Your task to perform on an android device: Search for logitech g502 on costco.com, select the first entry, add it to the cart, then select checkout. Image 0: 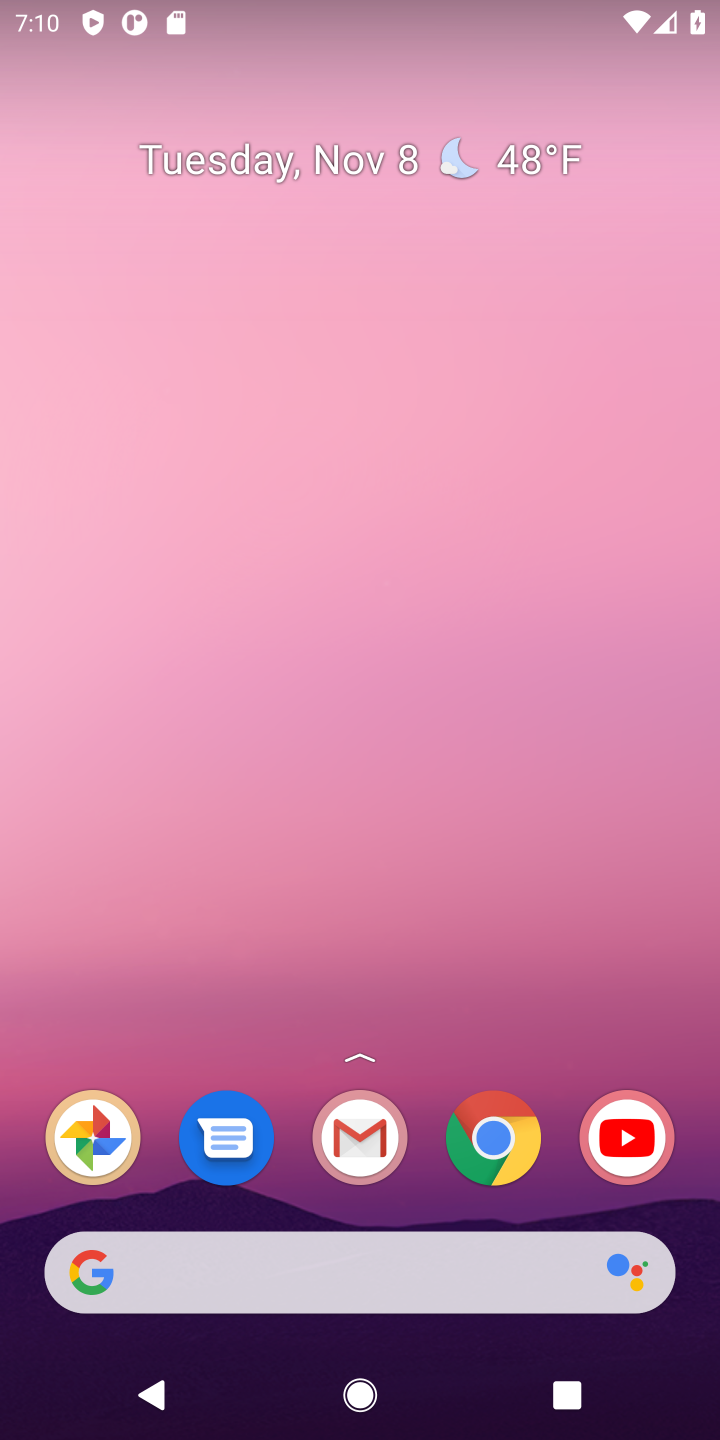
Step 0: click (491, 1143)
Your task to perform on an android device: Search for logitech g502 on costco.com, select the first entry, add it to the cart, then select checkout. Image 1: 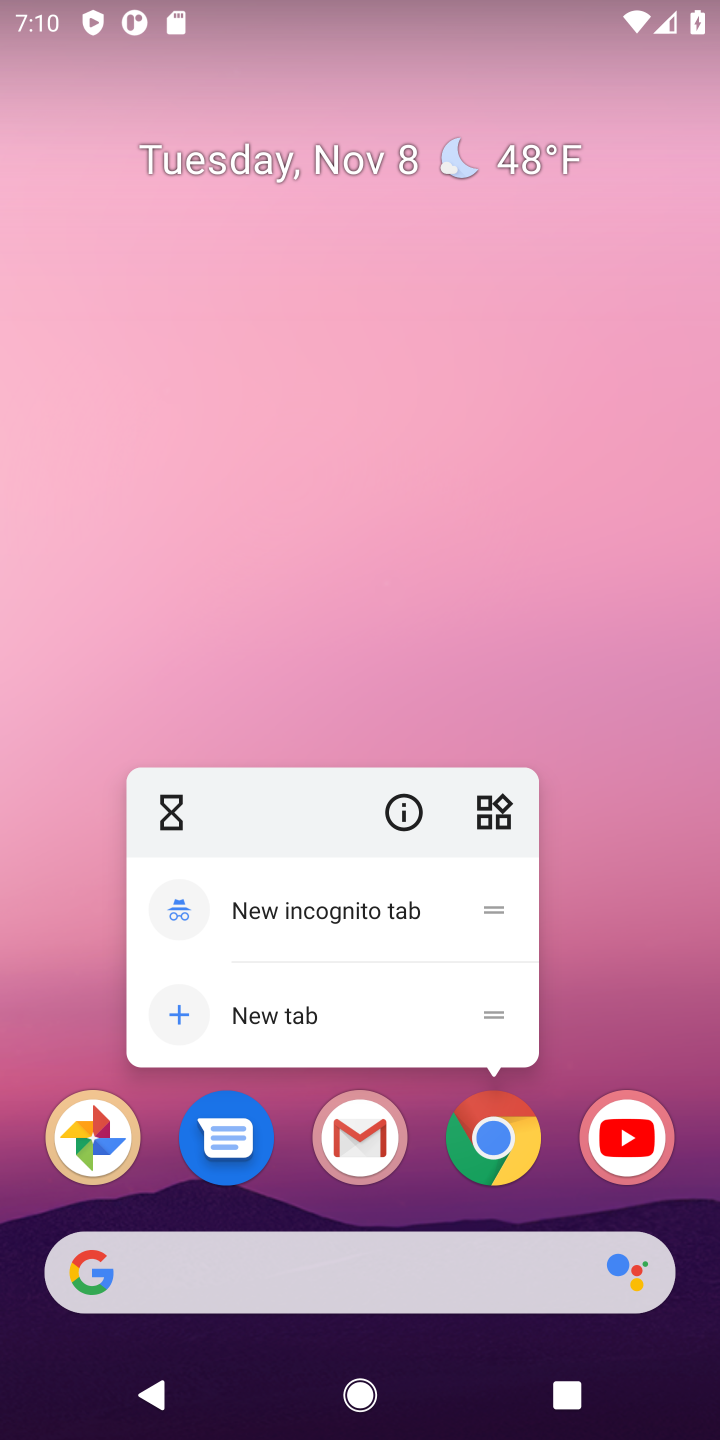
Step 1: click (491, 1143)
Your task to perform on an android device: Search for logitech g502 on costco.com, select the first entry, add it to the cart, then select checkout. Image 2: 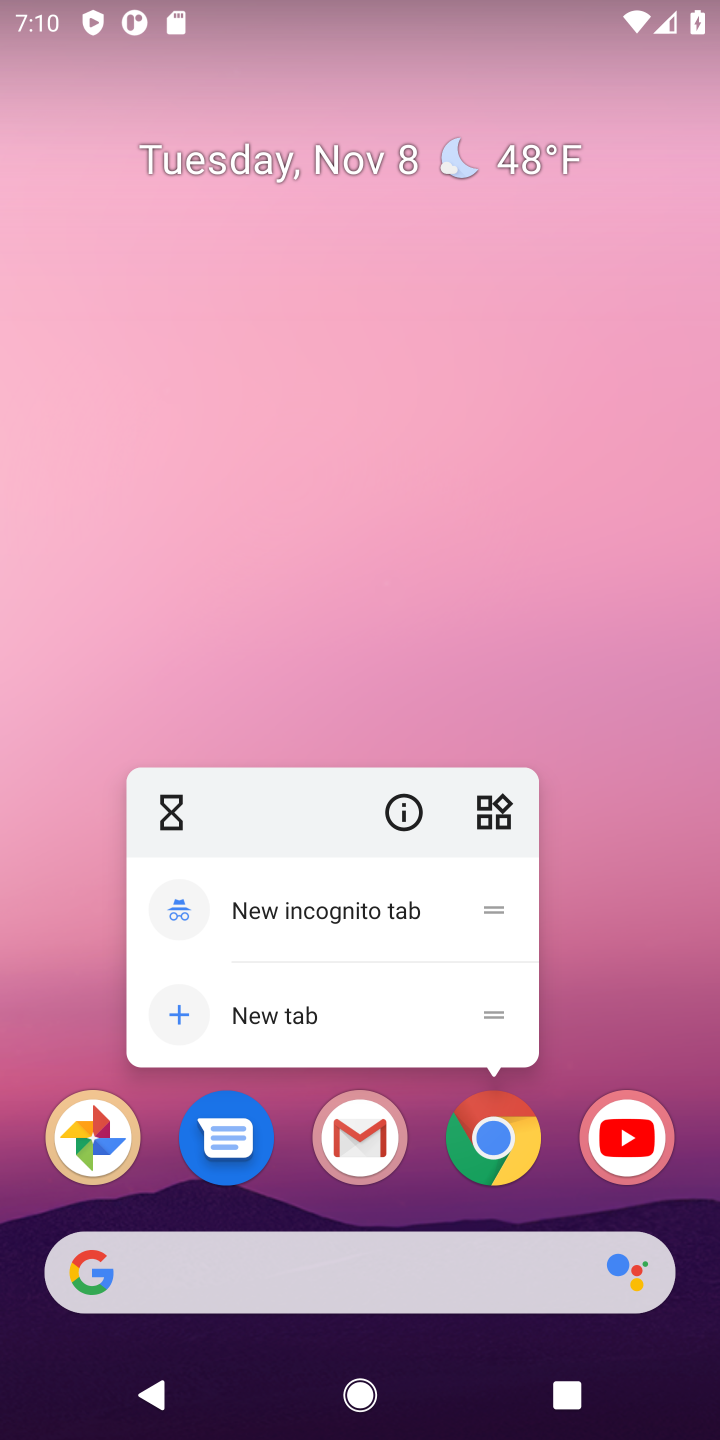
Step 2: click (491, 1145)
Your task to perform on an android device: Search for logitech g502 on costco.com, select the first entry, add it to the cart, then select checkout. Image 3: 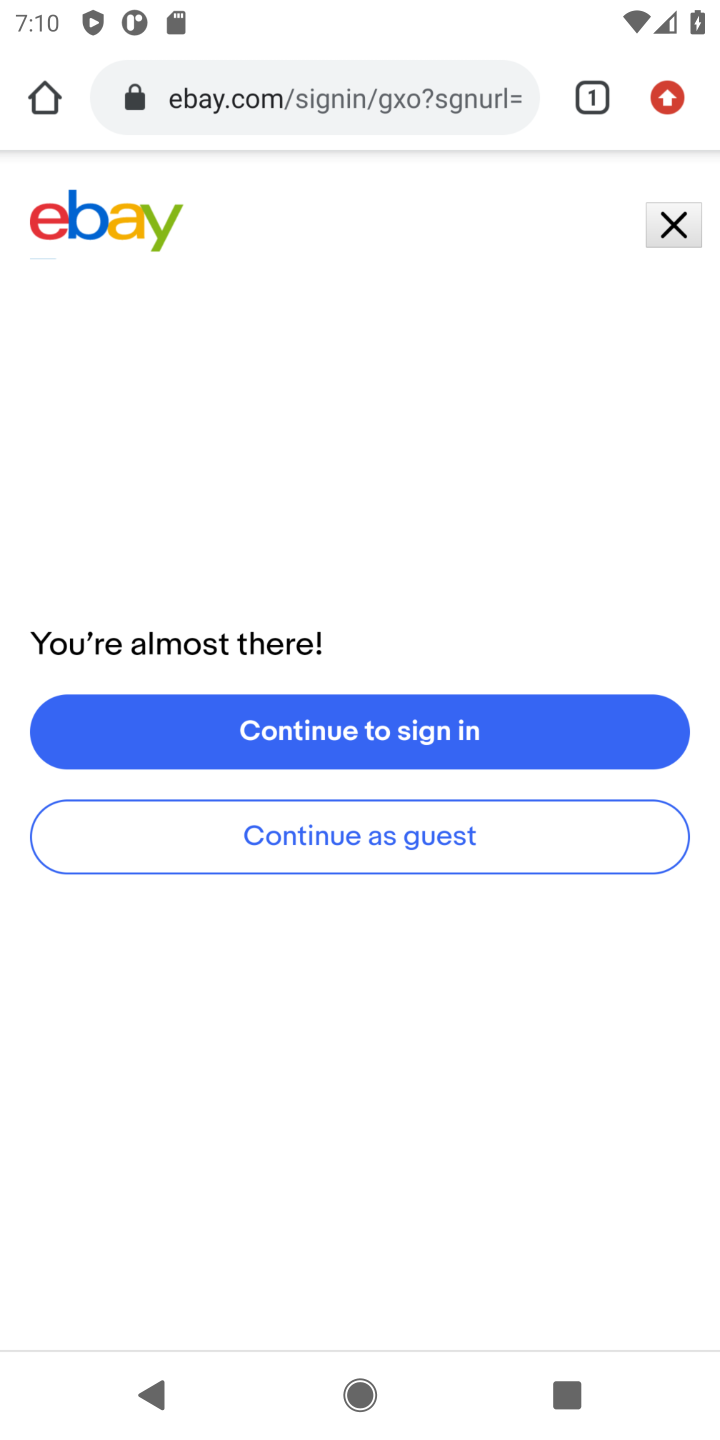
Step 3: click (491, 1148)
Your task to perform on an android device: Search for logitech g502 on costco.com, select the first entry, add it to the cart, then select checkout. Image 4: 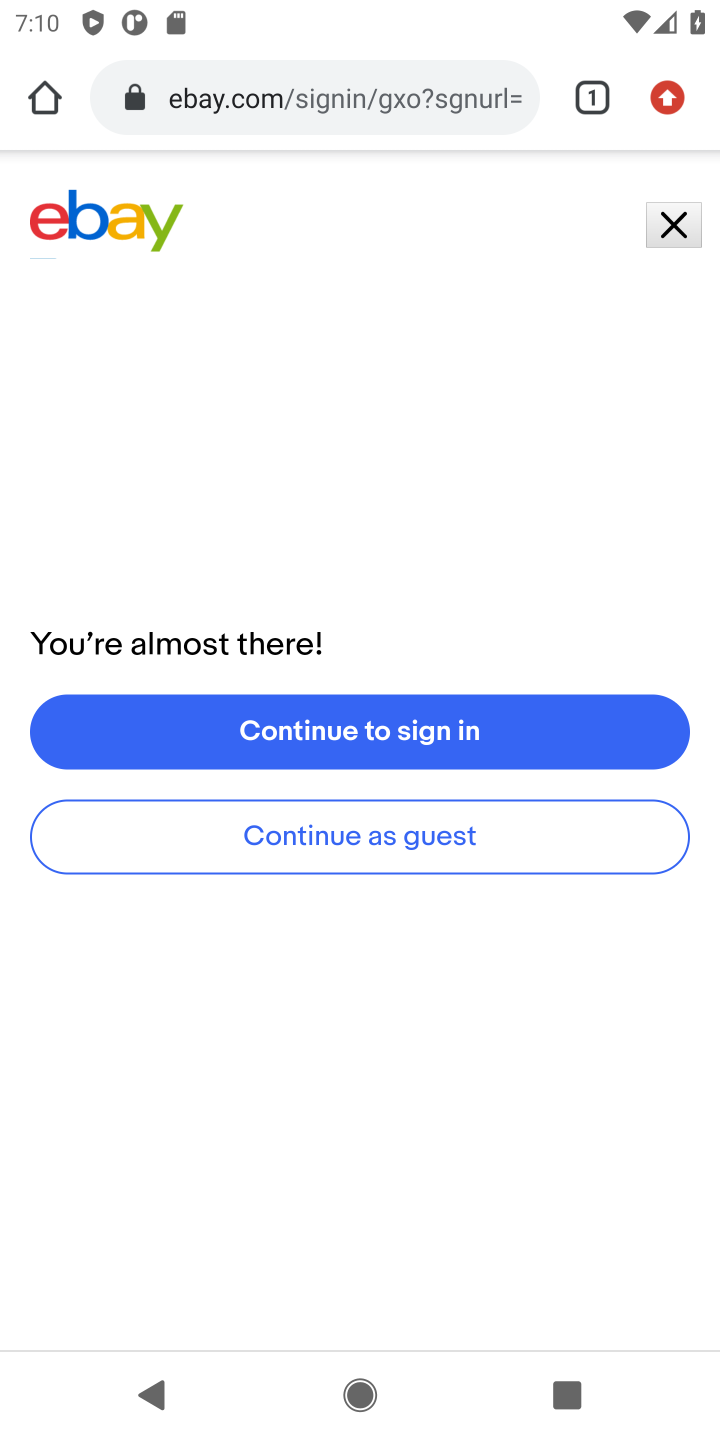
Step 4: click (420, 91)
Your task to perform on an android device: Search for logitech g502 on costco.com, select the first entry, add it to the cart, then select checkout. Image 5: 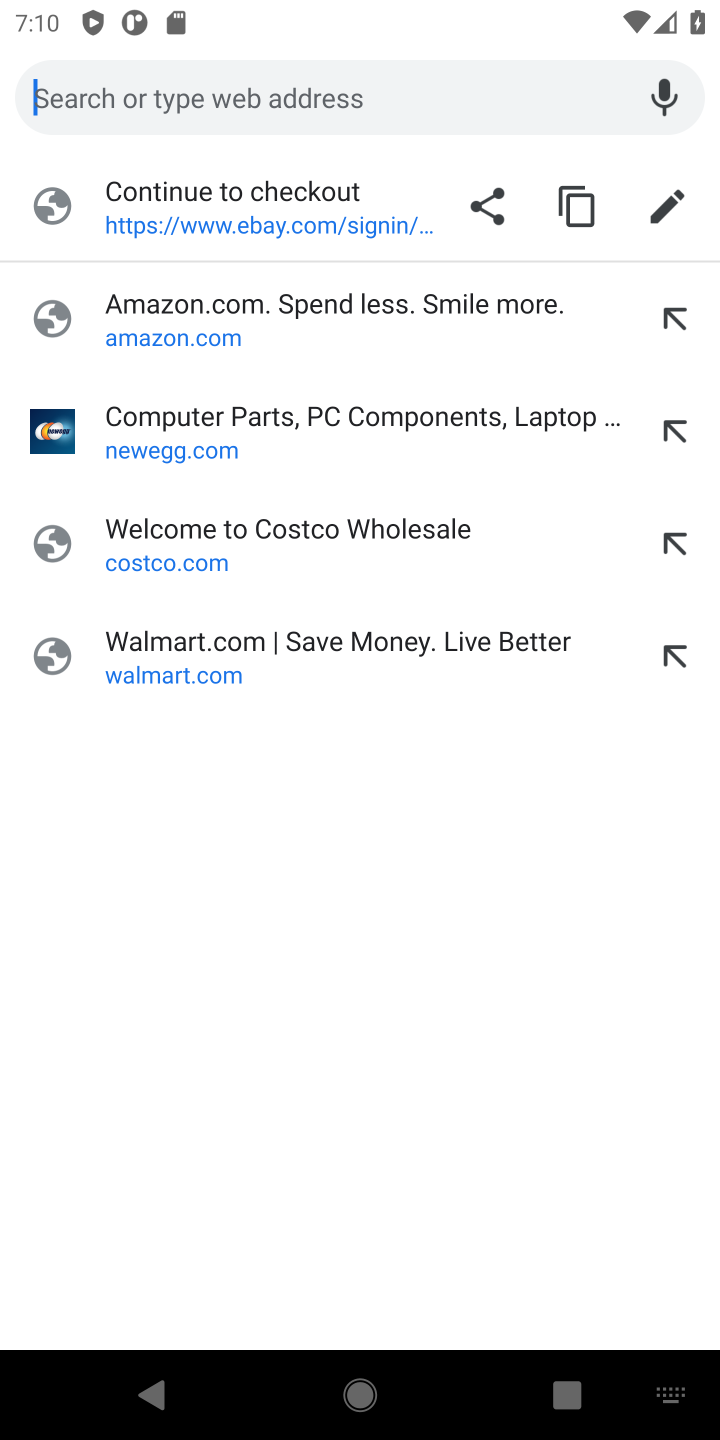
Step 5: type "costco.com"
Your task to perform on an android device: Search for logitech g502 on costco.com, select the first entry, add it to the cart, then select checkout. Image 6: 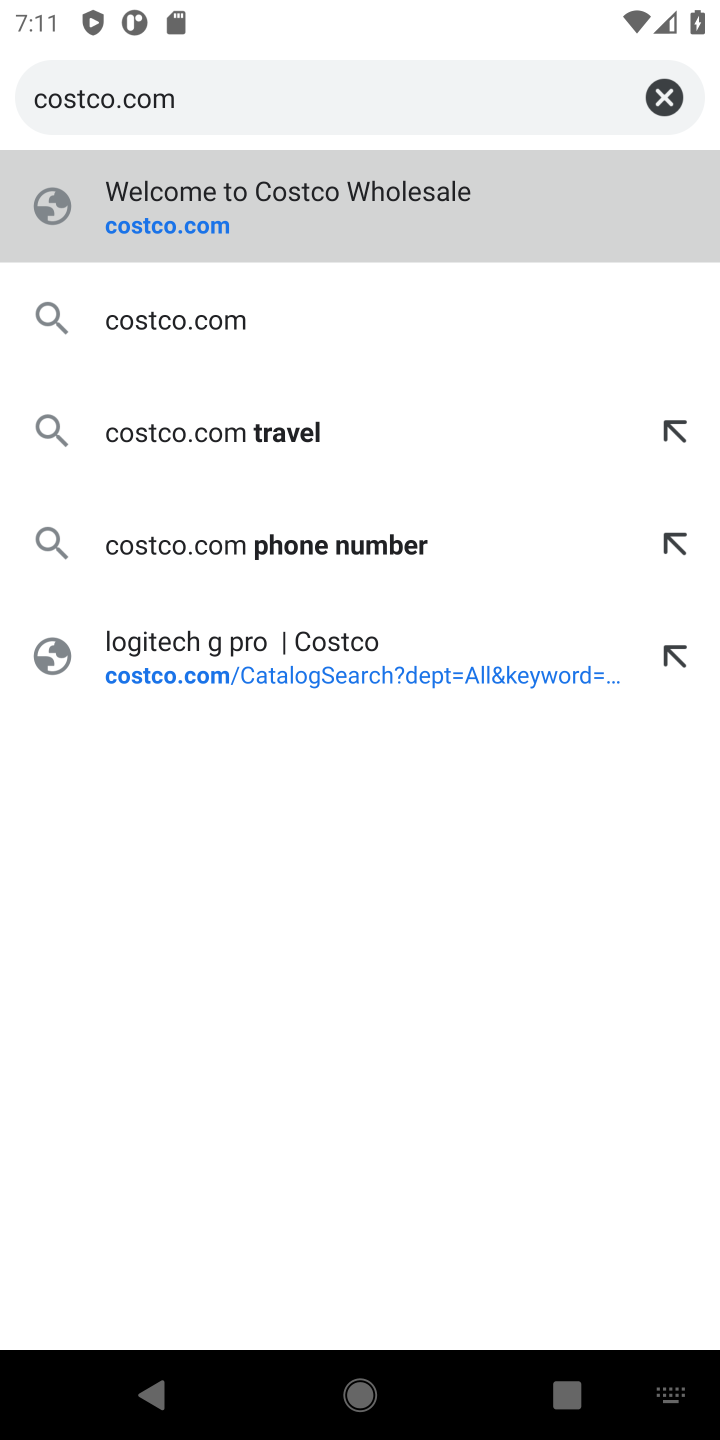
Step 6: press enter
Your task to perform on an android device: Search for logitech g502 on costco.com, select the first entry, add it to the cart, then select checkout. Image 7: 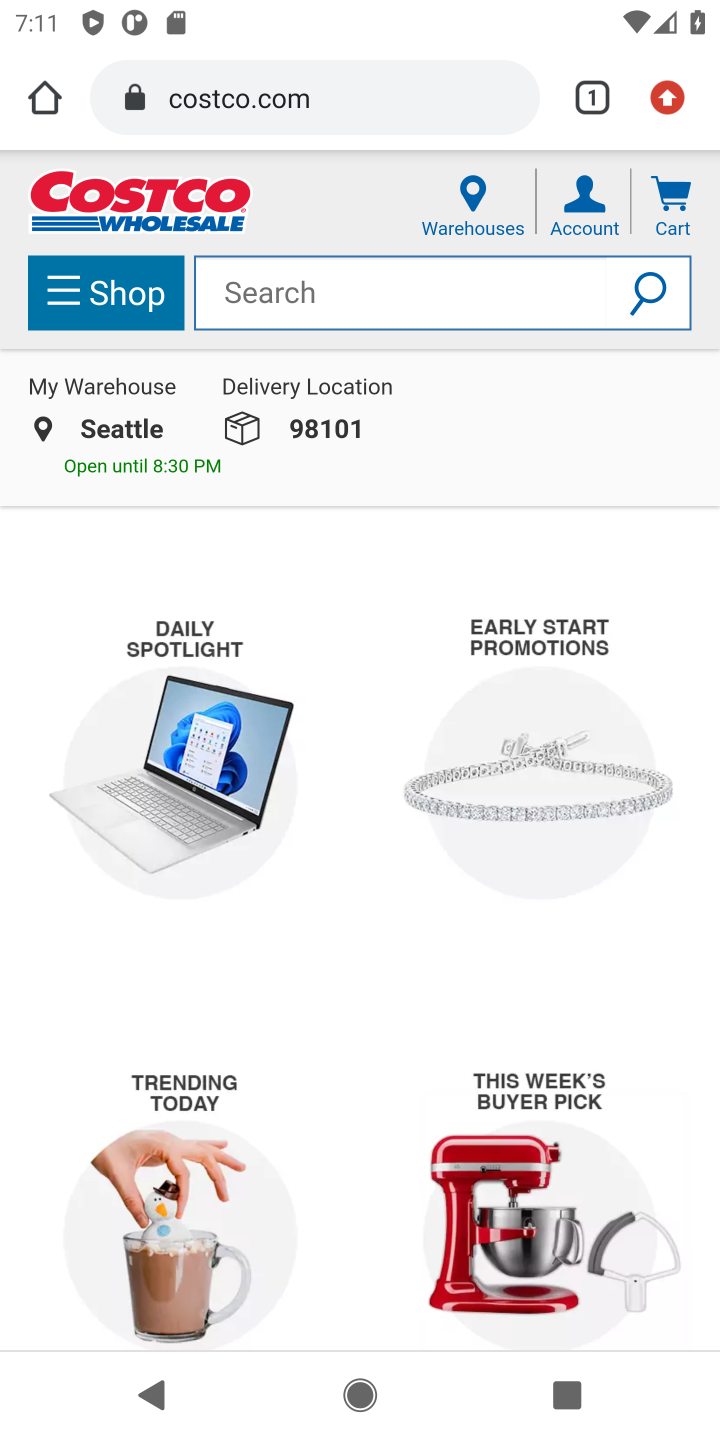
Step 7: click (350, 292)
Your task to perform on an android device: Search for logitech g502 on costco.com, select the first entry, add it to the cart, then select checkout. Image 8: 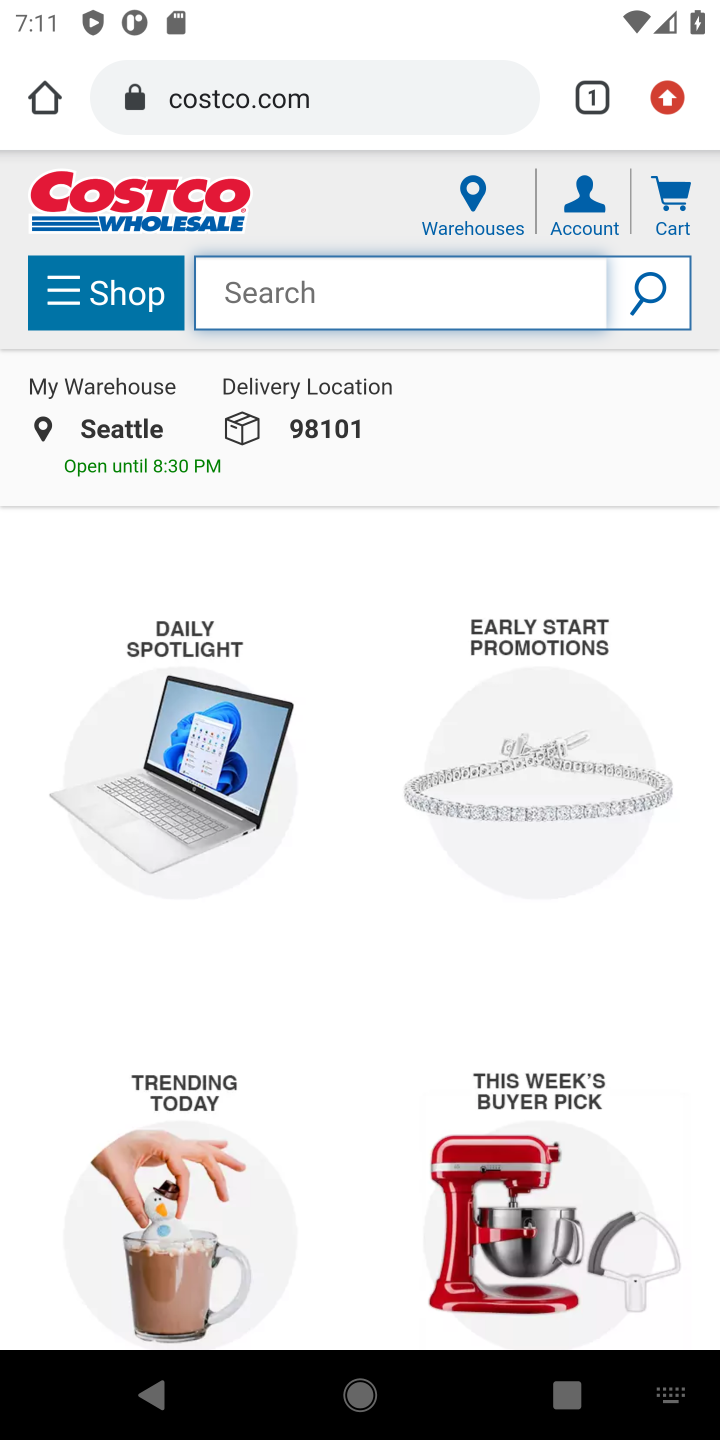
Step 8: type "logitech g502 "
Your task to perform on an android device: Search for logitech g502 on costco.com, select the first entry, add it to the cart, then select checkout. Image 9: 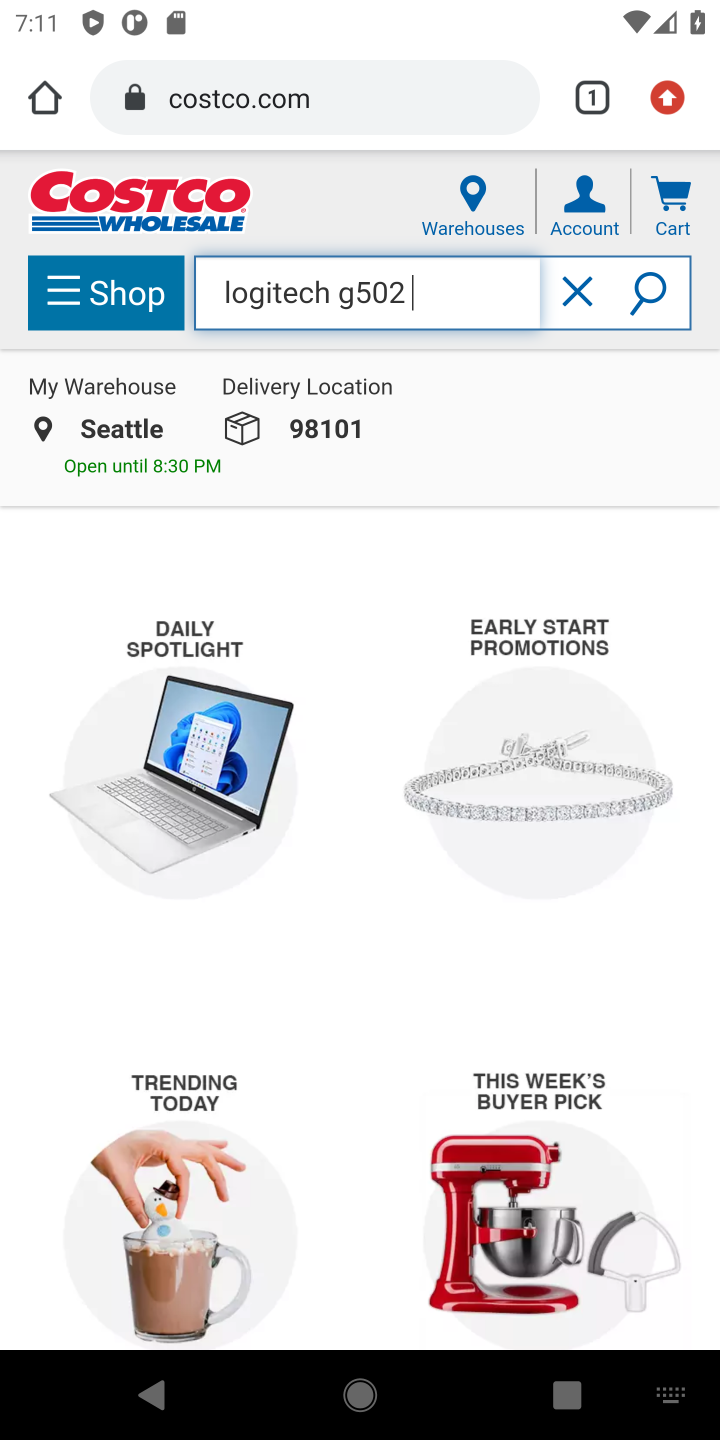
Step 9: press enter
Your task to perform on an android device: Search for logitech g502 on costco.com, select the first entry, add it to the cart, then select checkout. Image 10: 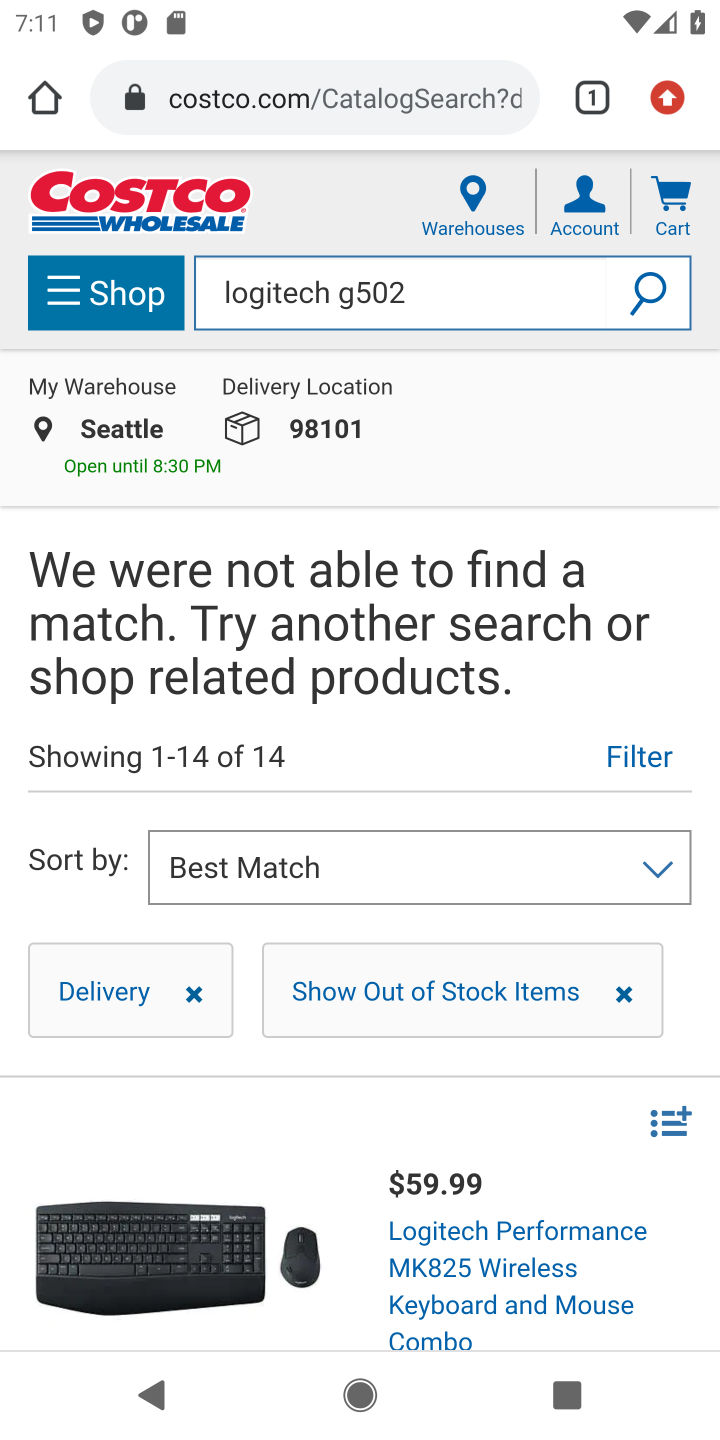
Step 10: task complete